Your task to perform on an android device: toggle airplane mode Image 0: 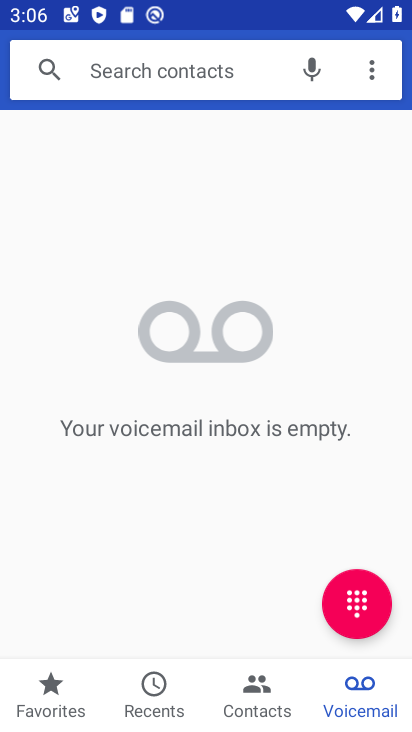
Step 0: press home button
Your task to perform on an android device: toggle airplane mode Image 1: 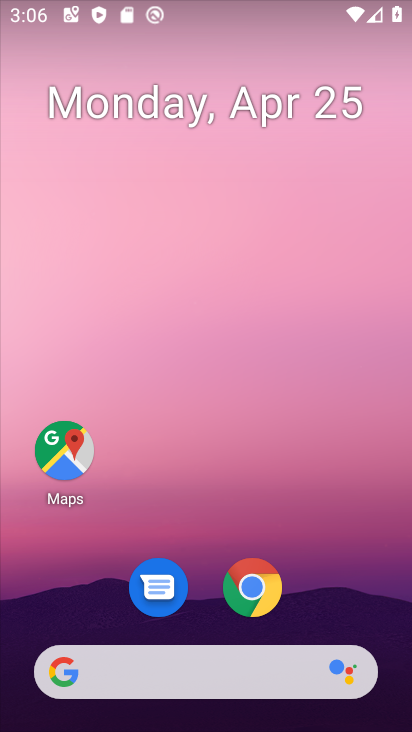
Step 1: drag from (198, 589) to (213, 197)
Your task to perform on an android device: toggle airplane mode Image 2: 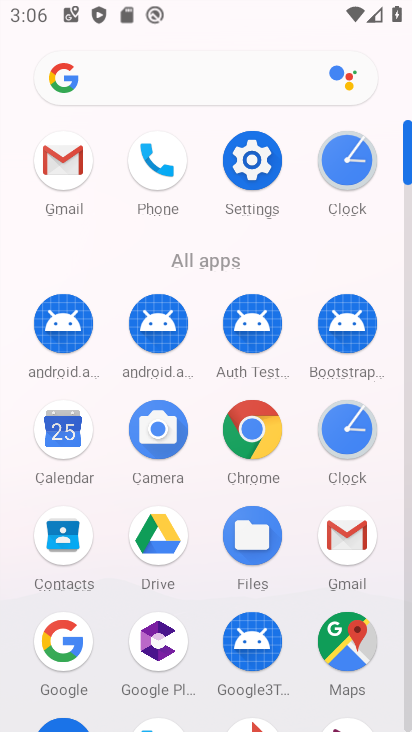
Step 2: click (252, 157)
Your task to perform on an android device: toggle airplane mode Image 3: 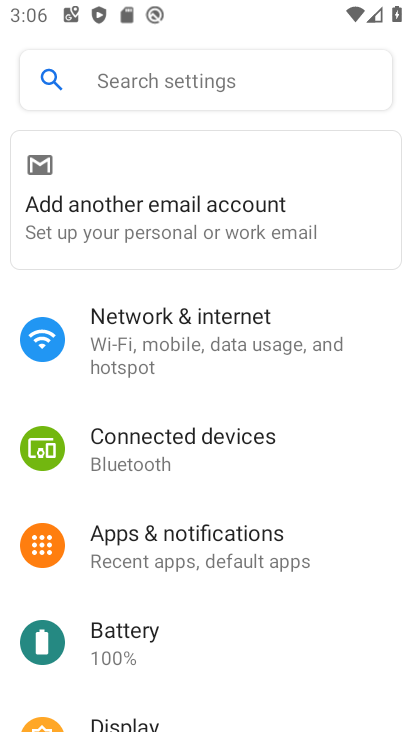
Step 3: click (197, 328)
Your task to perform on an android device: toggle airplane mode Image 4: 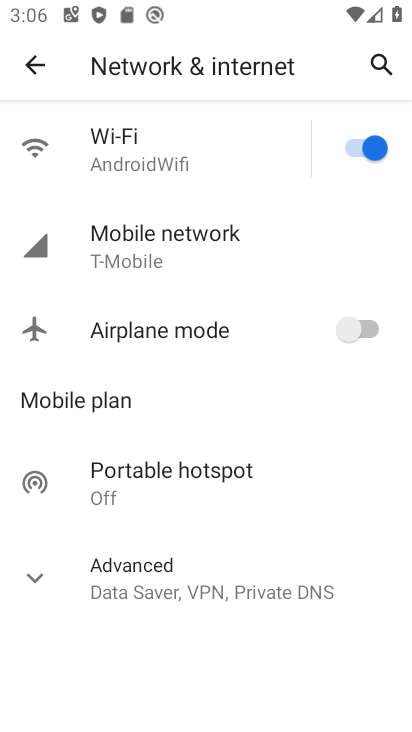
Step 4: click (347, 328)
Your task to perform on an android device: toggle airplane mode Image 5: 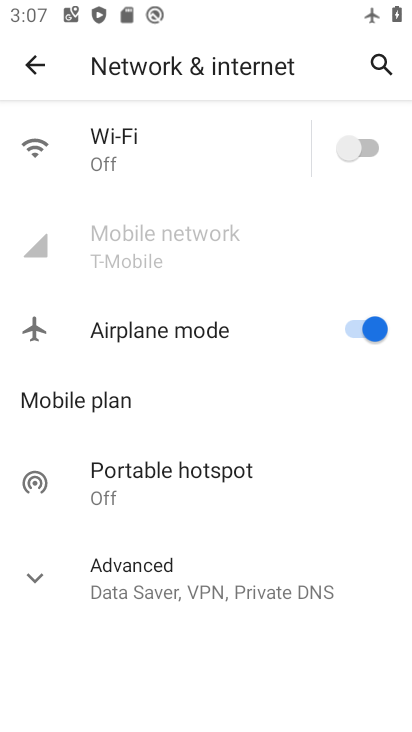
Step 5: task complete